Your task to perform on an android device: turn off javascript in the chrome app Image 0: 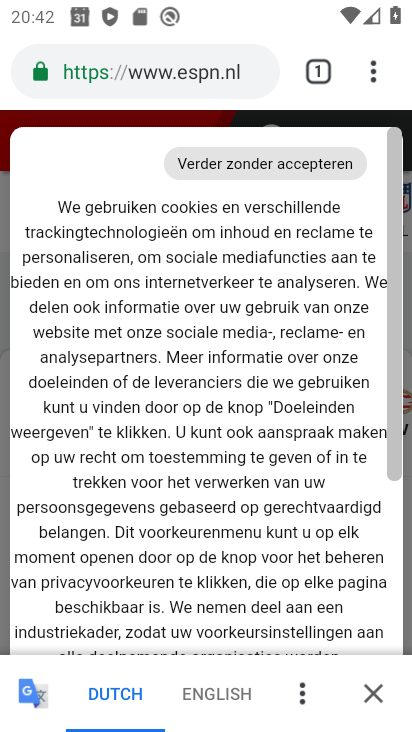
Step 0: press home button
Your task to perform on an android device: turn off javascript in the chrome app Image 1: 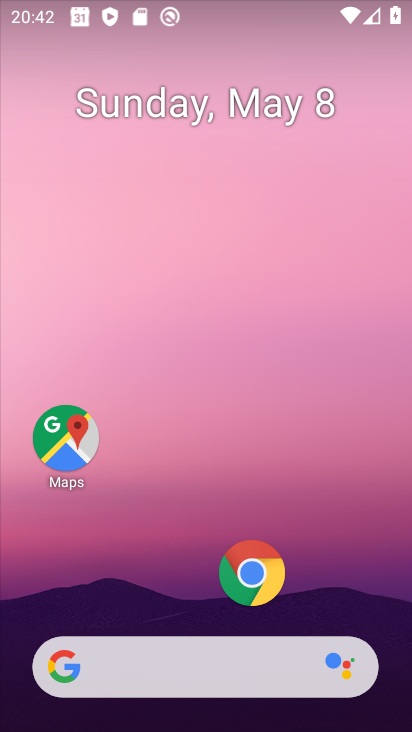
Step 1: click (250, 576)
Your task to perform on an android device: turn off javascript in the chrome app Image 2: 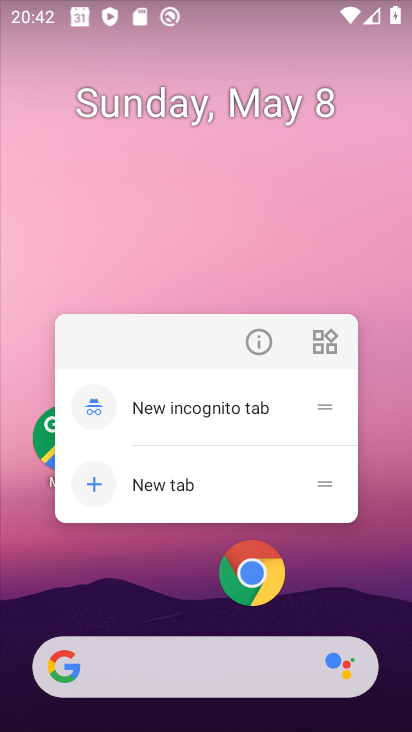
Step 2: click (257, 341)
Your task to perform on an android device: turn off javascript in the chrome app Image 3: 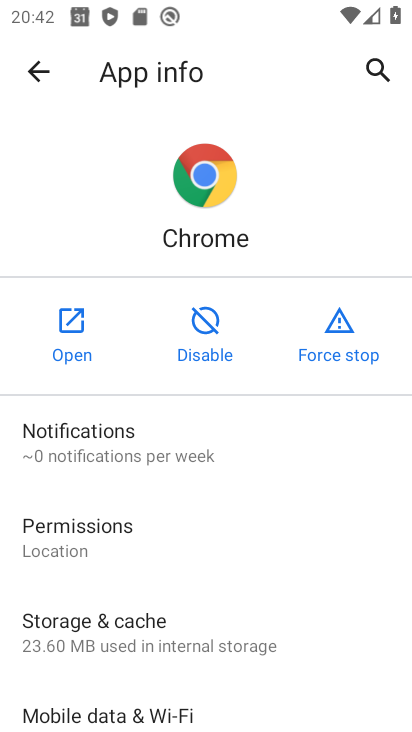
Step 3: click (77, 337)
Your task to perform on an android device: turn off javascript in the chrome app Image 4: 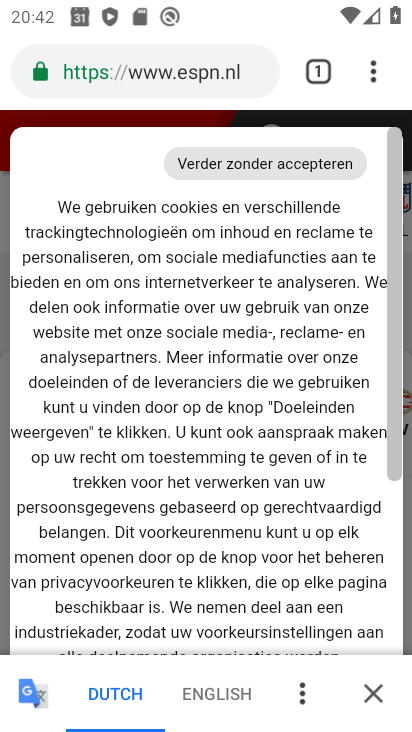
Step 4: click (373, 69)
Your task to perform on an android device: turn off javascript in the chrome app Image 5: 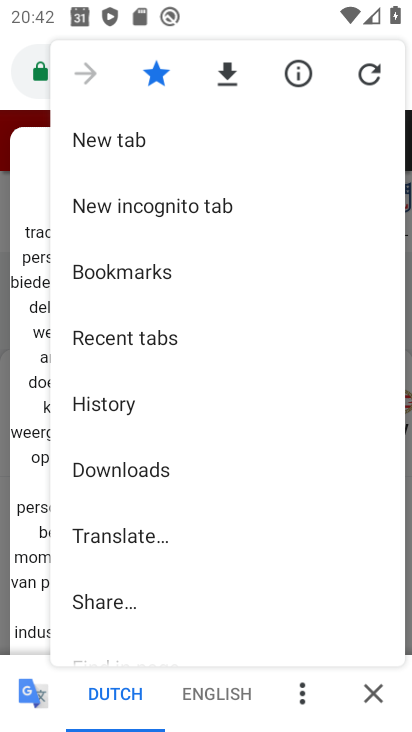
Step 5: drag from (228, 493) to (275, 228)
Your task to perform on an android device: turn off javascript in the chrome app Image 6: 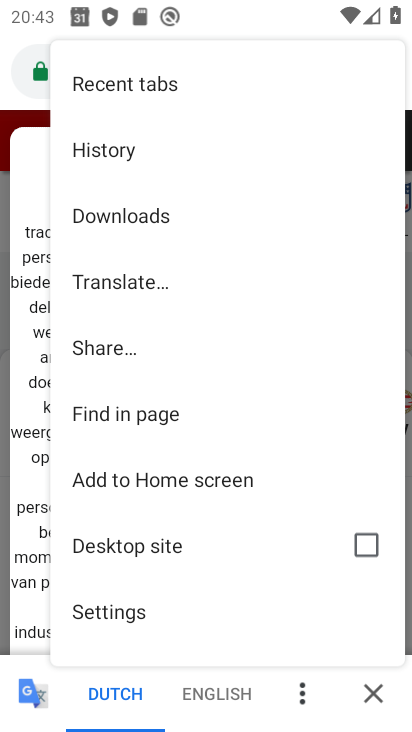
Step 6: drag from (134, 613) to (143, 240)
Your task to perform on an android device: turn off javascript in the chrome app Image 7: 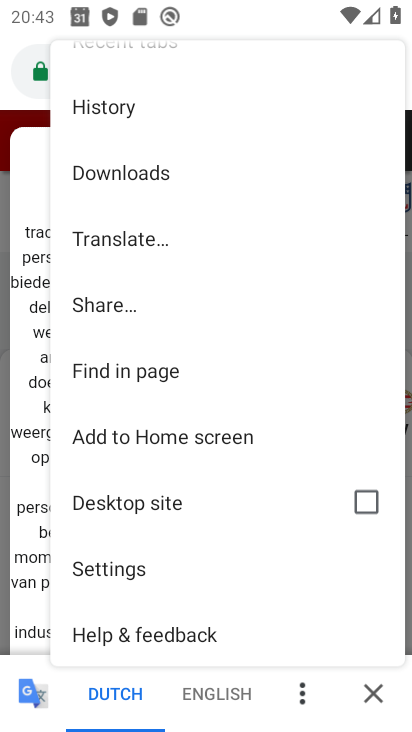
Step 7: drag from (131, 567) to (177, 323)
Your task to perform on an android device: turn off javascript in the chrome app Image 8: 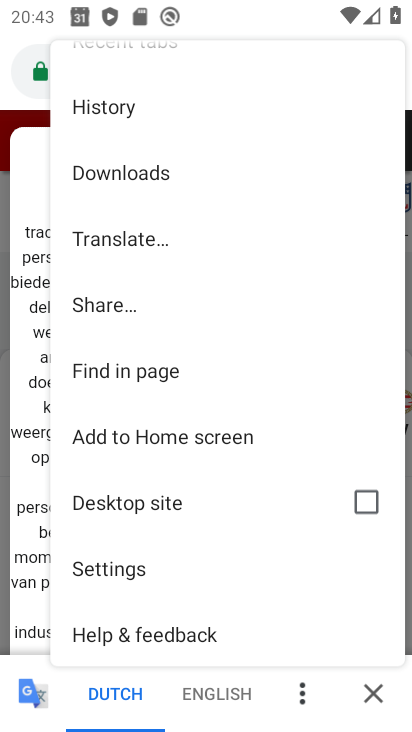
Step 8: drag from (136, 534) to (168, 336)
Your task to perform on an android device: turn off javascript in the chrome app Image 9: 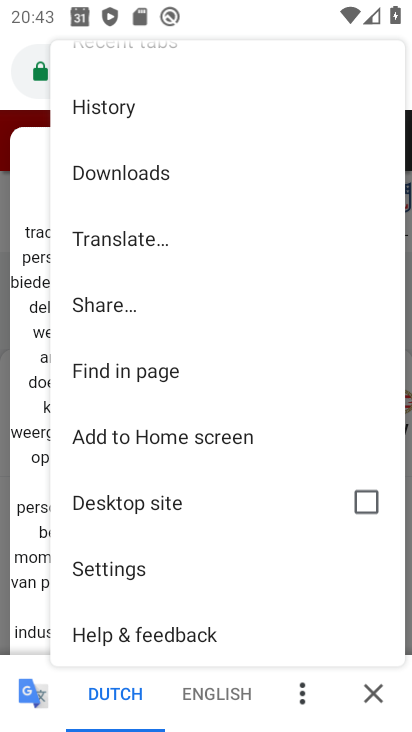
Step 9: click (115, 573)
Your task to perform on an android device: turn off javascript in the chrome app Image 10: 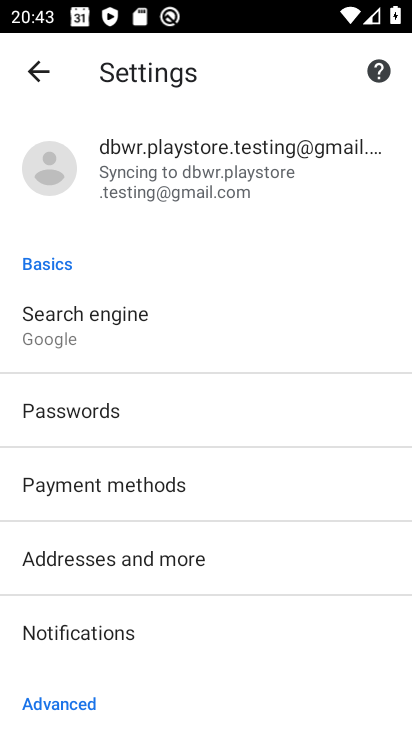
Step 10: drag from (124, 589) to (125, 229)
Your task to perform on an android device: turn off javascript in the chrome app Image 11: 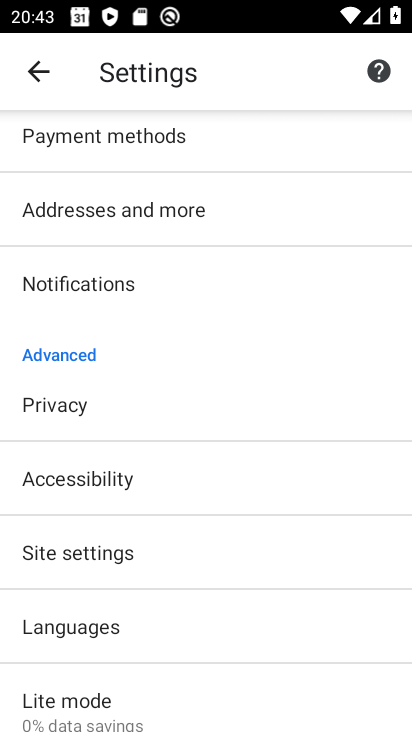
Step 11: click (91, 555)
Your task to perform on an android device: turn off javascript in the chrome app Image 12: 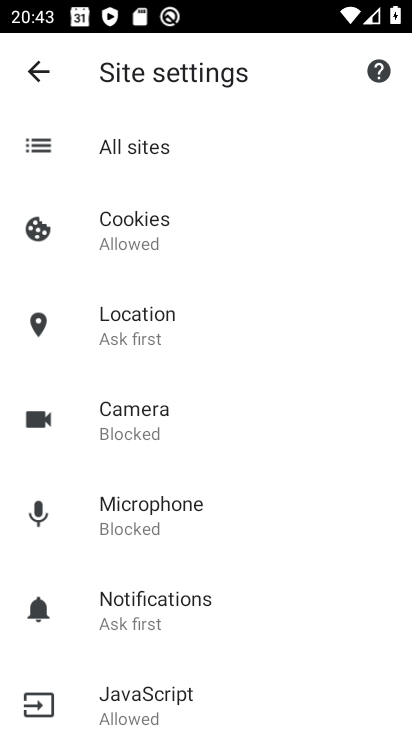
Step 12: click (151, 690)
Your task to perform on an android device: turn off javascript in the chrome app Image 13: 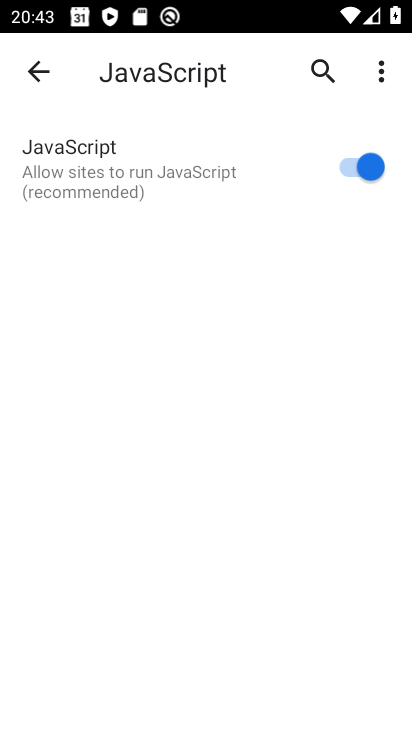
Step 13: click (347, 169)
Your task to perform on an android device: turn off javascript in the chrome app Image 14: 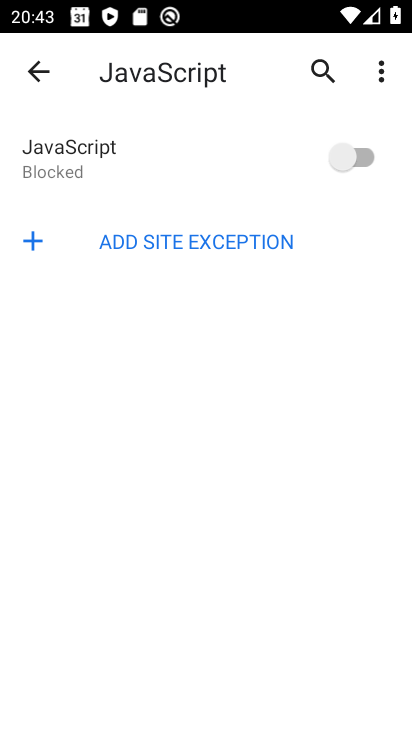
Step 14: task complete